Your task to perform on an android device: Turn off the flashlight Image 0: 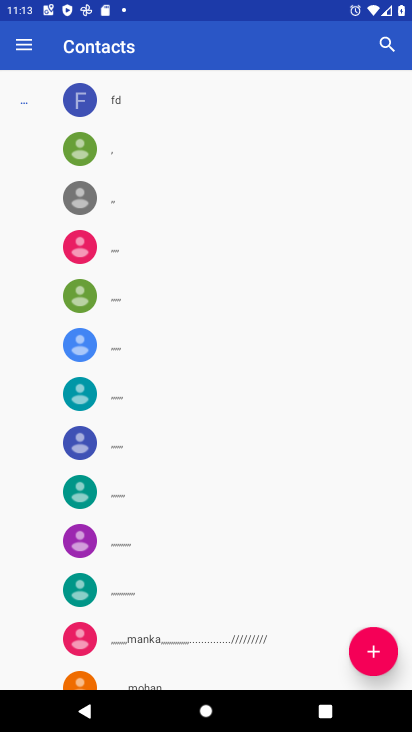
Step 0: drag from (249, 5) to (273, 410)
Your task to perform on an android device: Turn off the flashlight Image 1: 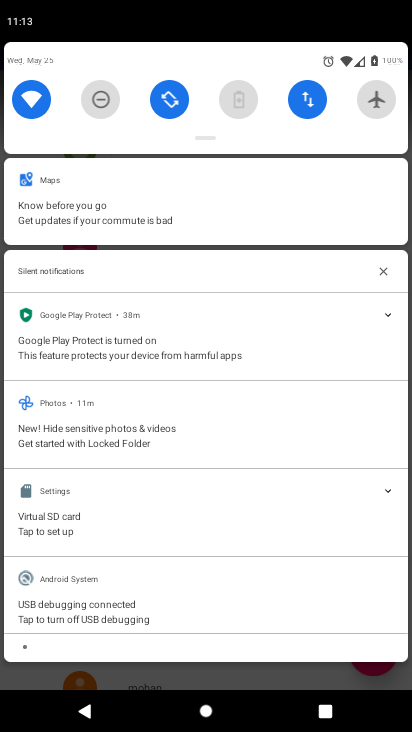
Step 1: task complete